Your task to perform on an android device: Go to Amazon Image 0: 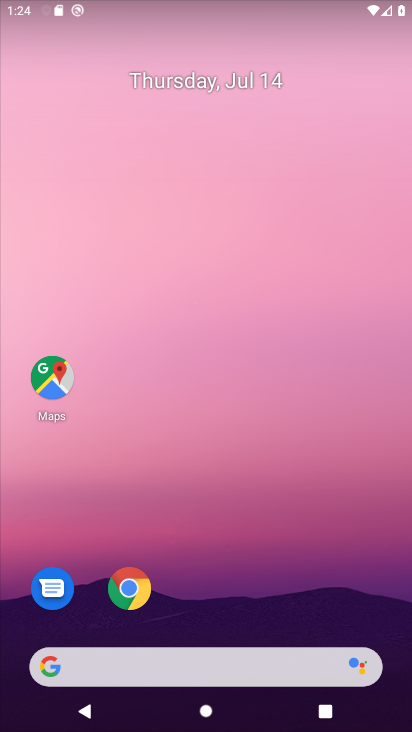
Step 0: drag from (357, 606) to (298, 3)
Your task to perform on an android device: Go to Amazon Image 1: 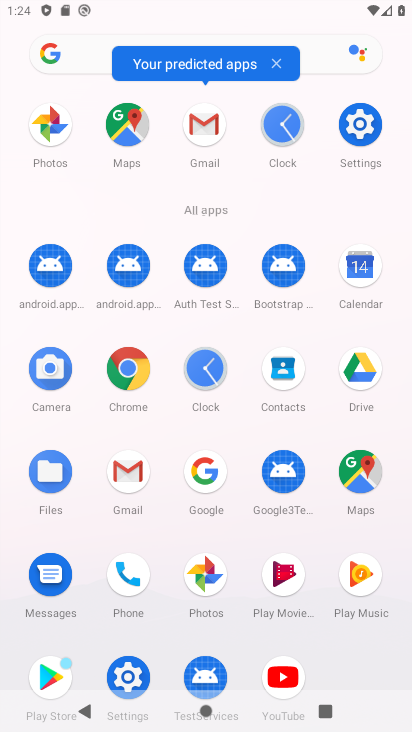
Step 1: click (118, 385)
Your task to perform on an android device: Go to Amazon Image 2: 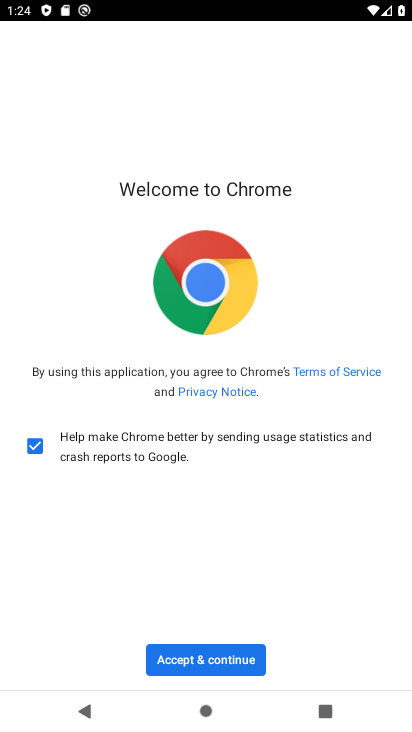
Step 2: click (233, 661)
Your task to perform on an android device: Go to Amazon Image 3: 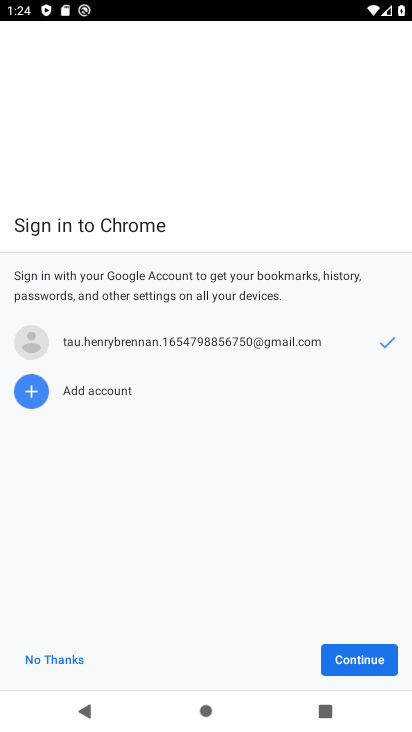
Step 3: click (32, 654)
Your task to perform on an android device: Go to Amazon Image 4: 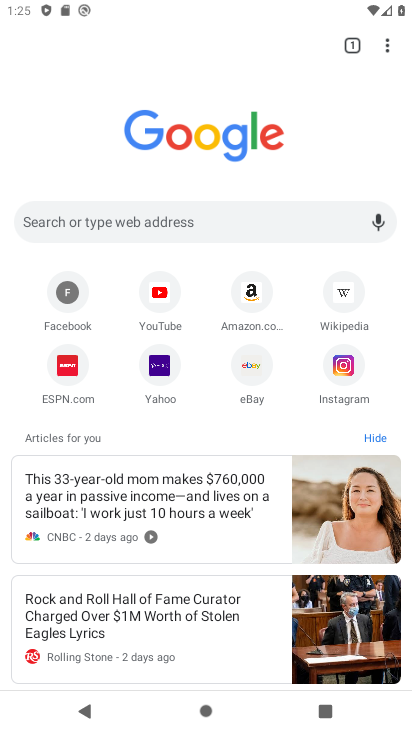
Step 4: click (241, 298)
Your task to perform on an android device: Go to Amazon Image 5: 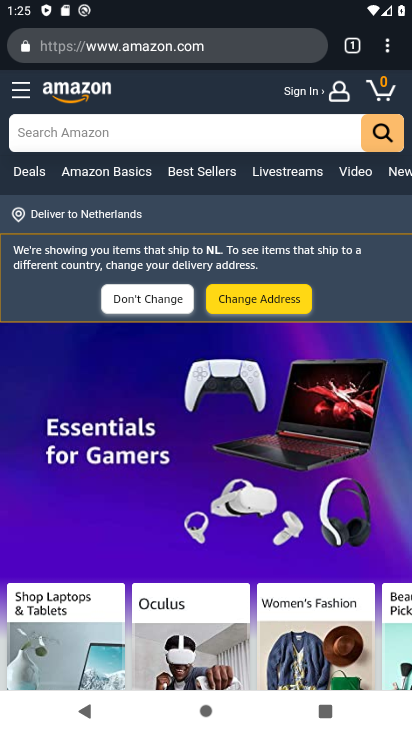
Step 5: task complete